Your task to perform on an android device: Set the phone to "Do not disturb". Image 0: 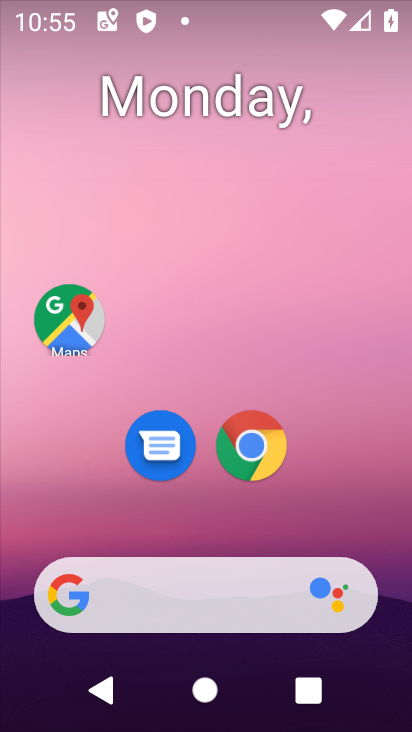
Step 0: drag from (239, 2) to (236, 366)
Your task to perform on an android device: Set the phone to "Do not disturb". Image 1: 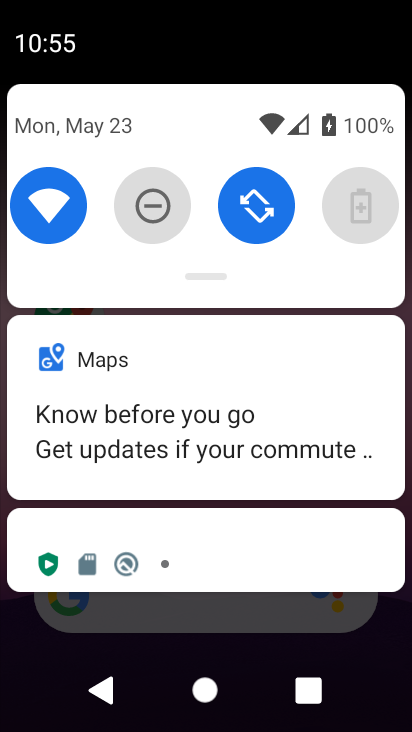
Step 1: click (155, 206)
Your task to perform on an android device: Set the phone to "Do not disturb". Image 2: 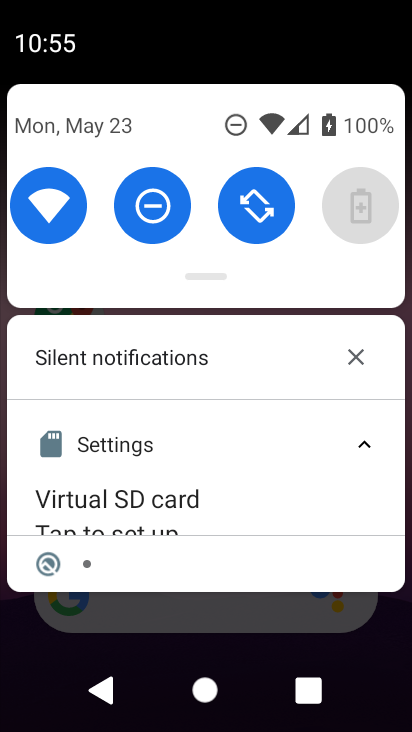
Step 2: task complete